Your task to perform on an android device: toggle location history Image 0: 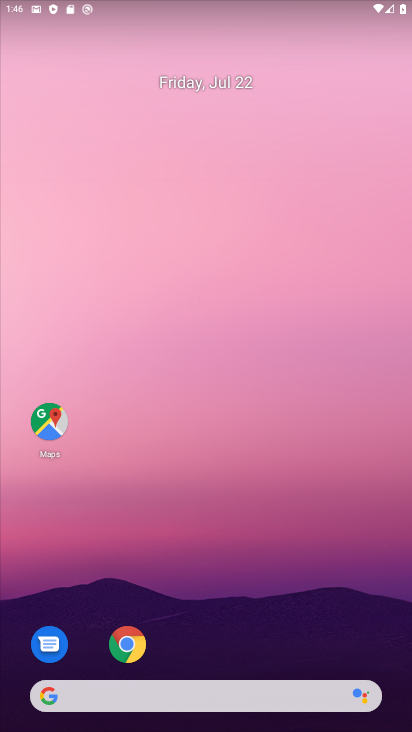
Step 0: drag from (254, 632) to (243, 256)
Your task to perform on an android device: toggle location history Image 1: 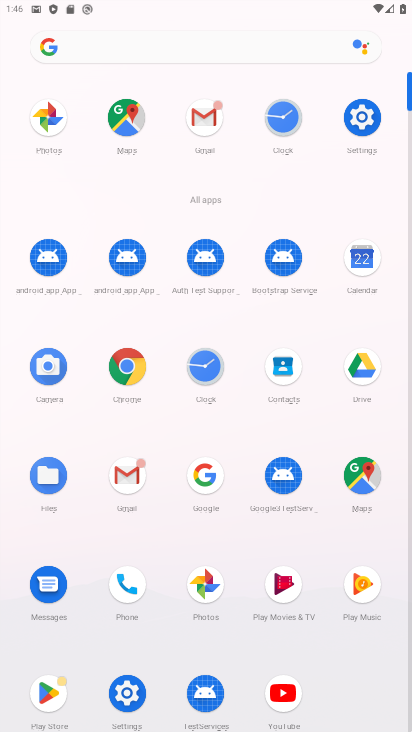
Step 1: click (345, 138)
Your task to perform on an android device: toggle location history Image 2: 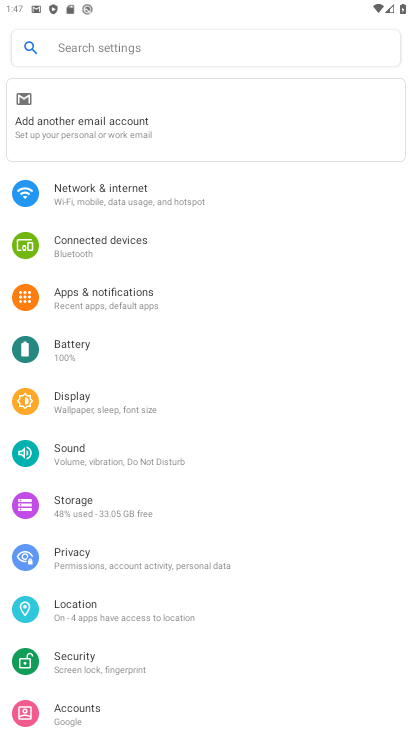
Step 2: click (117, 613)
Your task to perform on an android device: toggle location history Image 3: 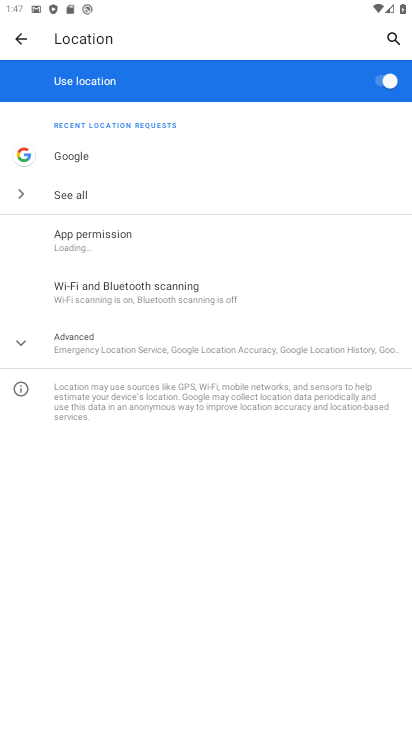
Step 3: click (166, 356)
Your task to perform on an android device: toggle location history Image 4: 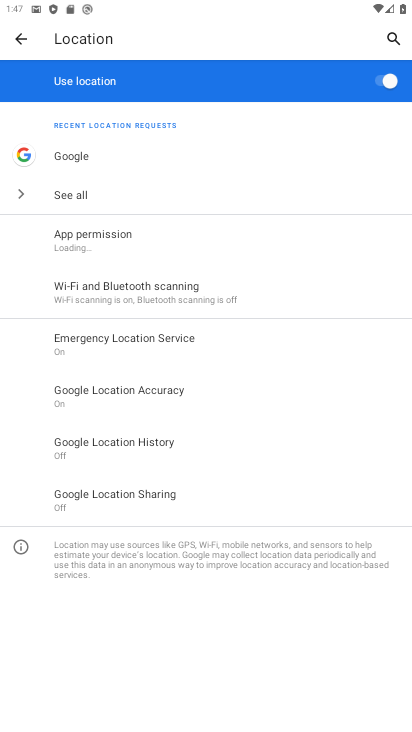
Step 4: click (187, 431)
Your task to perform on an android device: toggle location history Image 5: 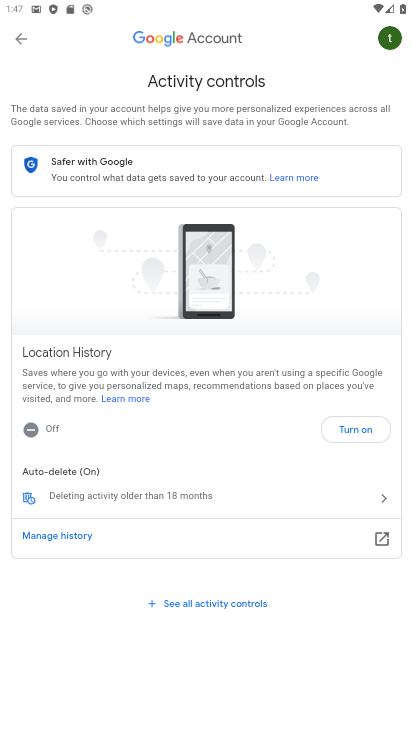
Step 5: click (349, 435)
Your task to perform on an android device: toggle location history Image 6: 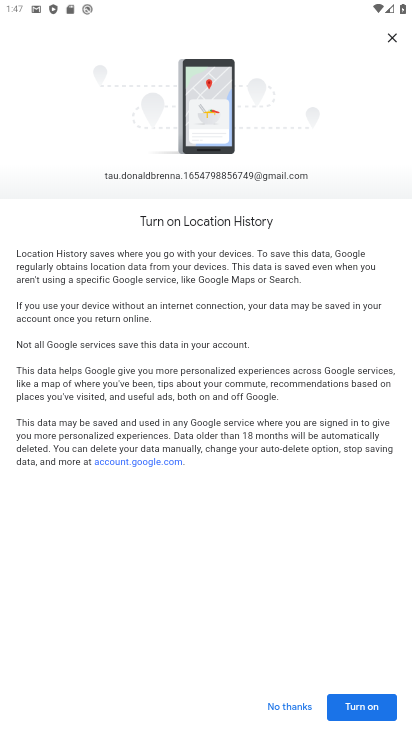
Step 6: click (358, 702)
Your task to perform on an android device: toggle location history Image 7: 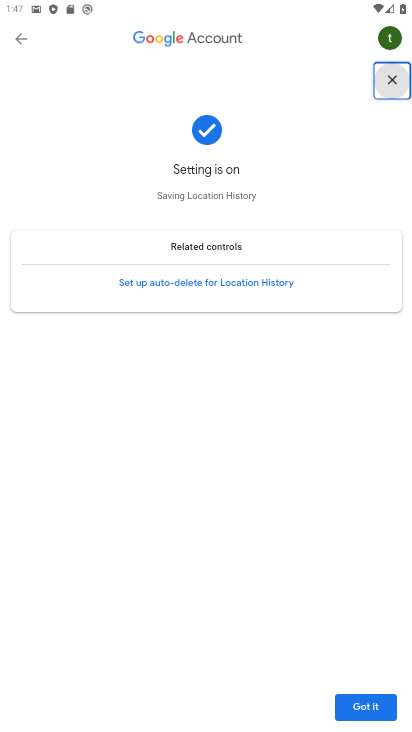
Step 7: click (363, 690)
Your task to perform on an android device: toggle location history Image 8: 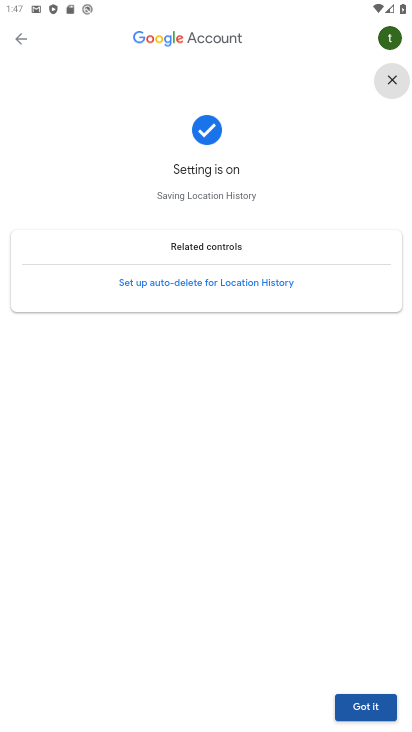
Step 8: click (356, 702)
Your task to perform on an android device: toggle location history Image 9: 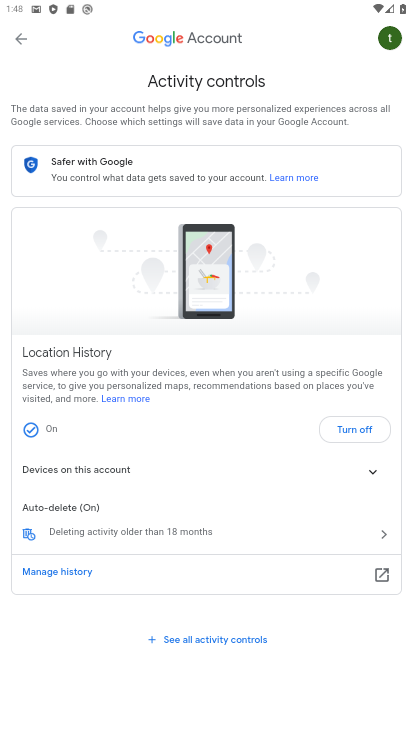
Step 9: task complete